Your task to perform on an android device: open a bookmark in the chrome app Image 0: 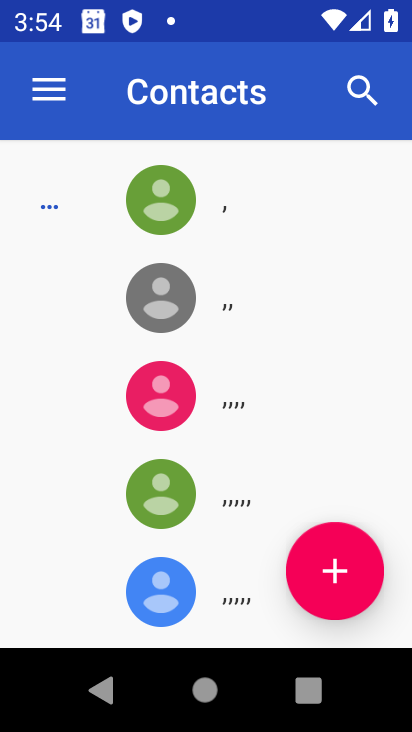
Step 0: press home button
Your task to perform on an android device: open a bookmark in the chrome app Image 1: 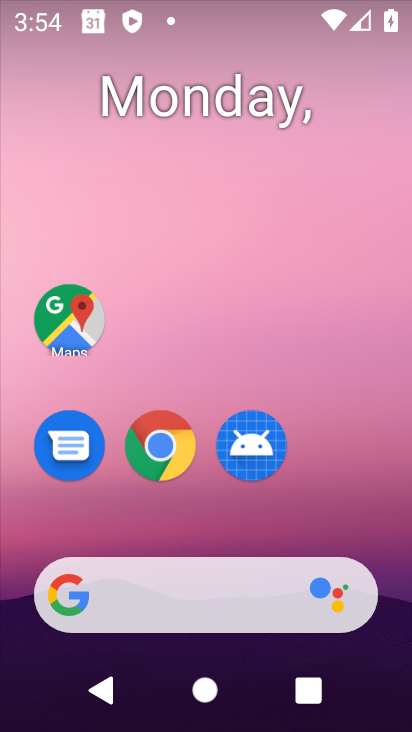
Step 1: click (171, 471)
Your task to perform on an android device: open a bookmark in the chrome app Image 2: 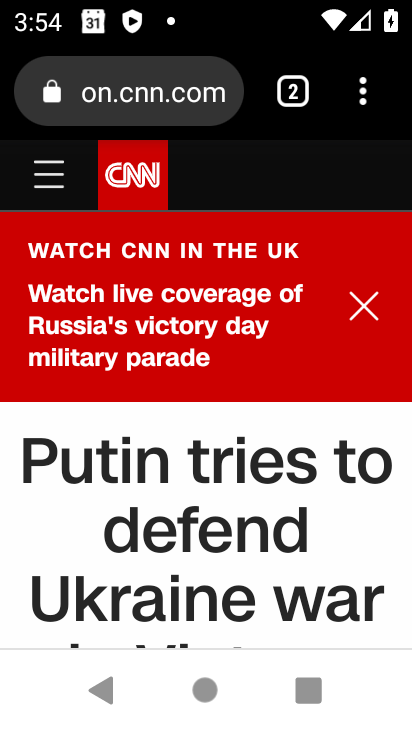
Step 2: task complete